Your task to perform on an android device: find which apps use the phone's location Image 0: 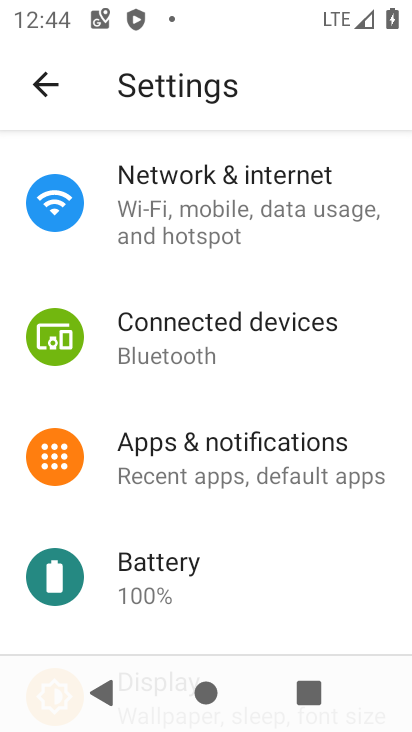
Step 0: press back button
Your task to perform on an android device: find which apps use the phone's location Image 1: 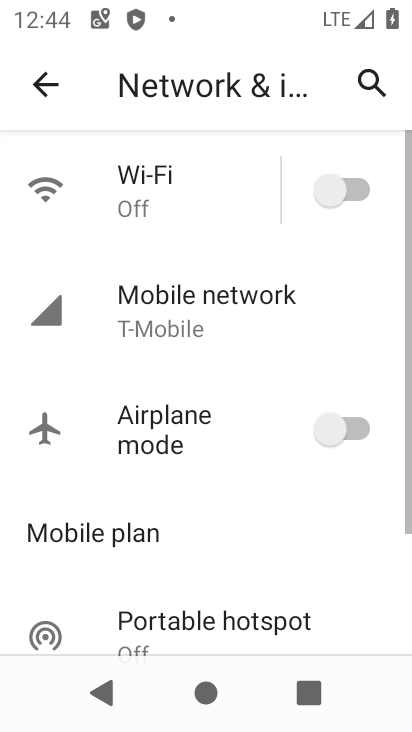
Step 1: press back button
Your task to perform on an android device: find which apps use the phone's location Image 2: 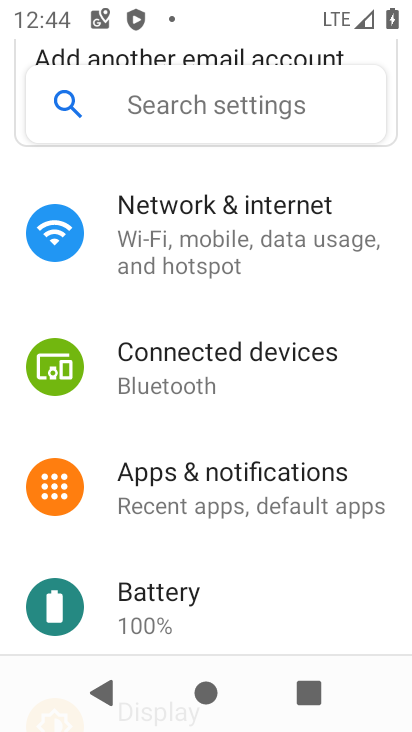
Step 2: press back button
Your task to perform on an android device: find which apps use the phone's location Image 3: 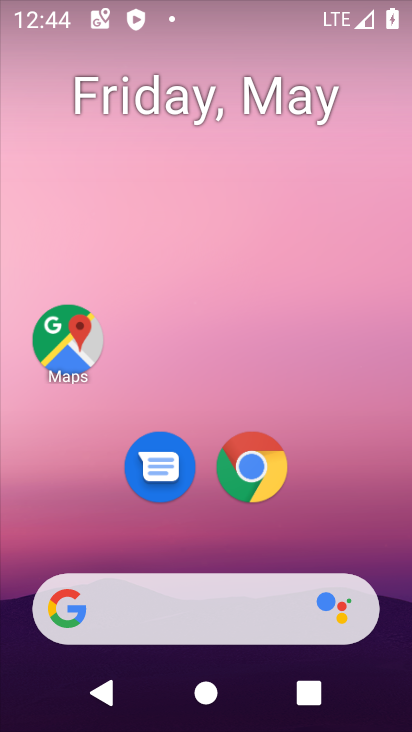
Step 3: drag from (331, 518) to (272, 118)
Your task to perform on an android device: find which apps use the phone's location Image 4: 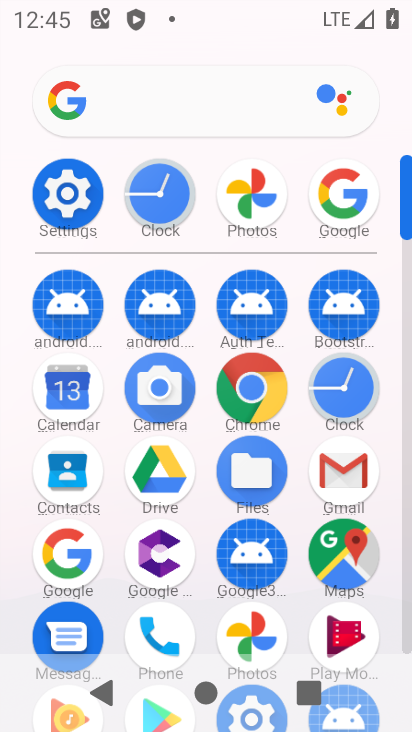
Step 4: drag from (205, 509) to (203, 327)
Your task to perform on an android device: find which apps use the phone's location Image 5: 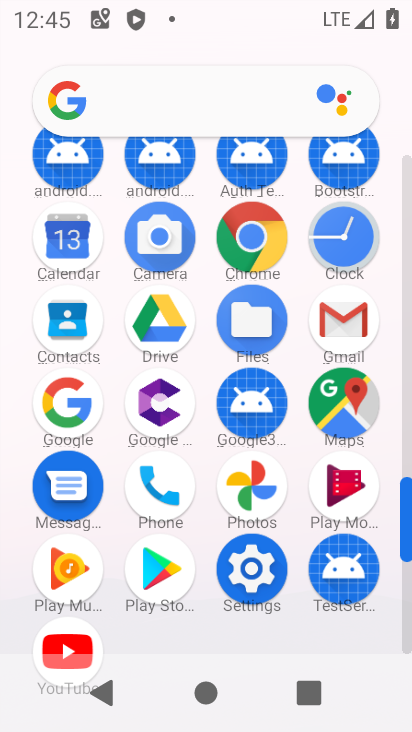
Step 5: click (249, 568)
Your task to perform on an android device: find which apps use the phone's location Image 6: 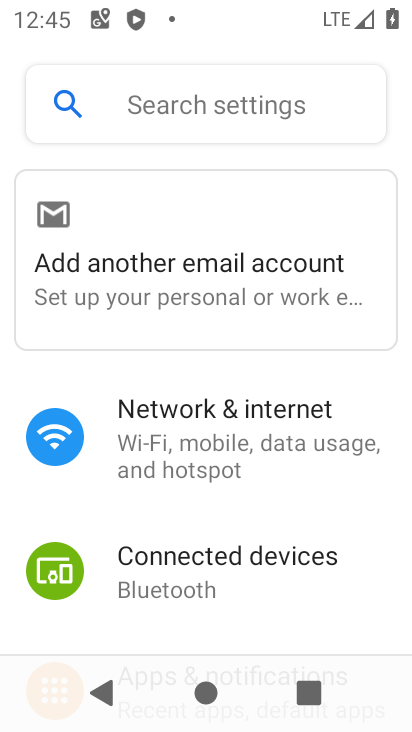
Step 6: drag from (260, 526) to (261, 216)
Your task to perform on an android device: find which apps use the phone's location Image 7: 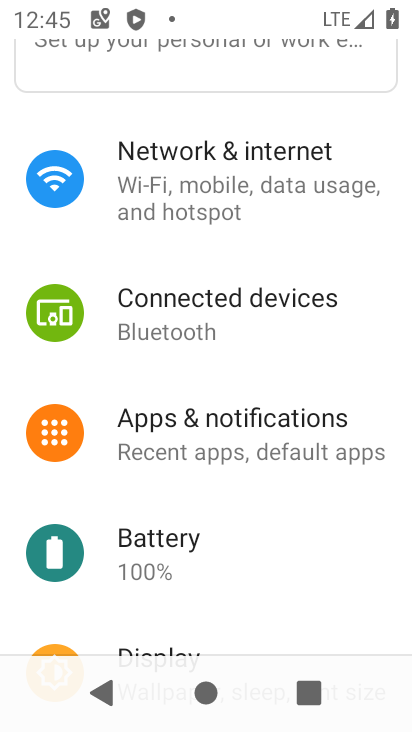
Step 7: drag from (211, 484) to (219, 231)
Your task to perform on an android device: find which apps use the phone's location Image 8: 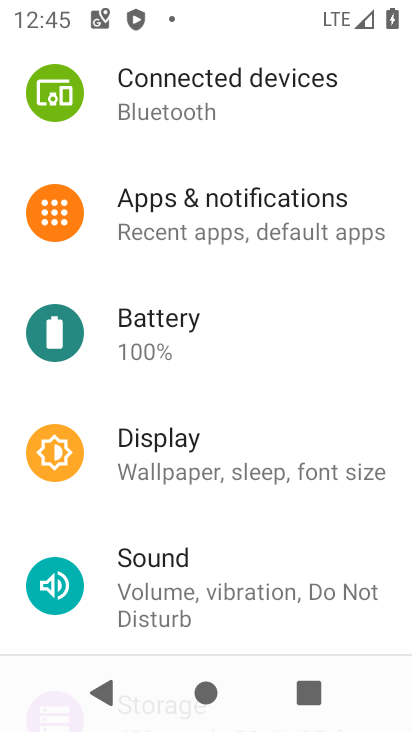
Step 8: drag from (196, 502) to (211, 255)
Your task to perform on an android device: find which apps use the phone's location Image 9: 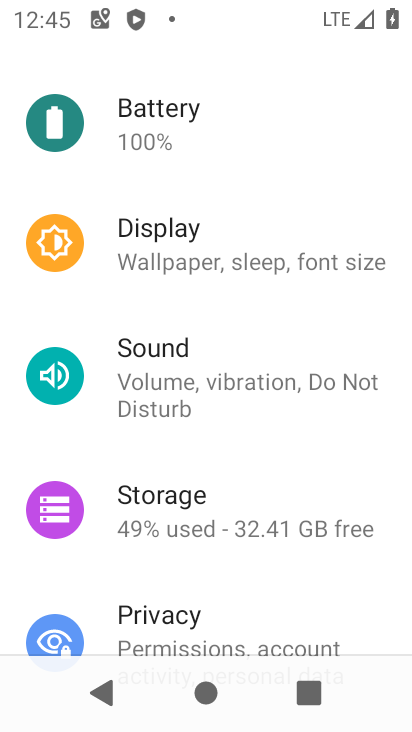
Step 9: drag from (165, 446) to (166, 193)
Your task to perform on an android device: find which apps use the phone's location Image 10: 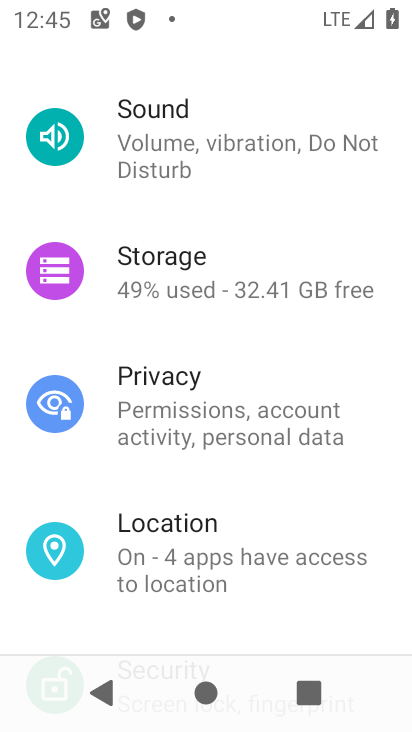
Step 10: drag from (149, 477) to (194, 287)
Your task to perform on an android device: find which apps use the phone's location Image 11: 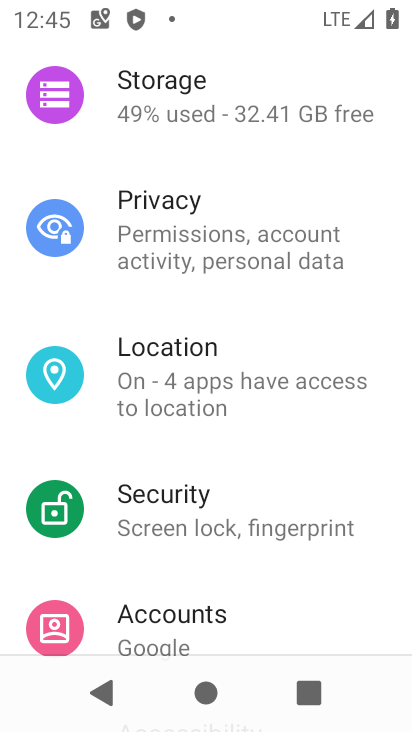
Step 11: drag from (147, 460) to (179, 303)
Your task to perform on an android device: find which apps use the phone's location Image 12: 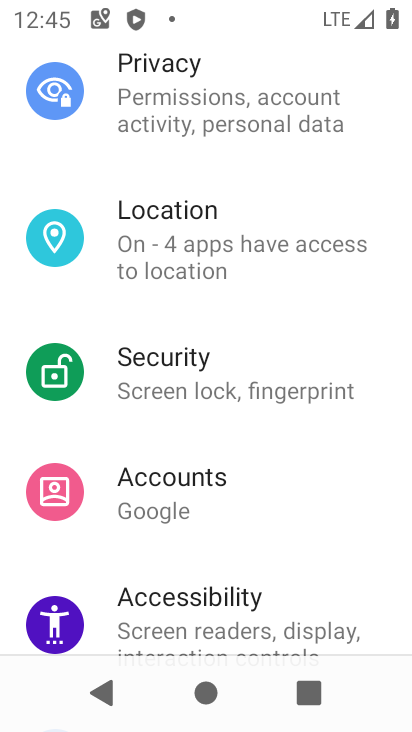
Step 12: click (179, 208)
Your task to perform on an android device: find which apps use the phone's location Image 13: 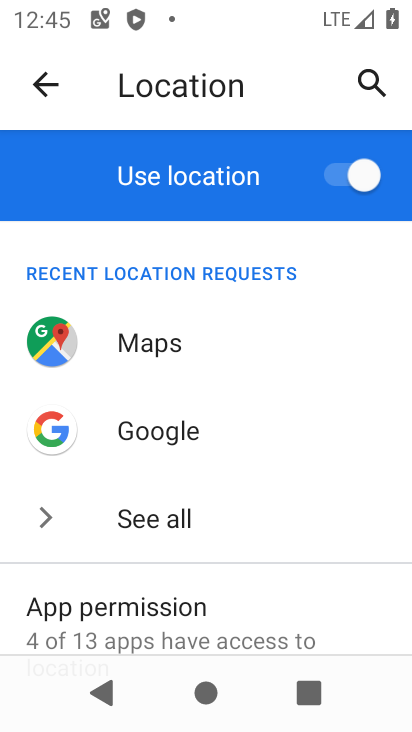
Step 13: drag from (233, 520) to (251, 394)
Your task to perform on an android device: find which apps use the phone's location Image 14: 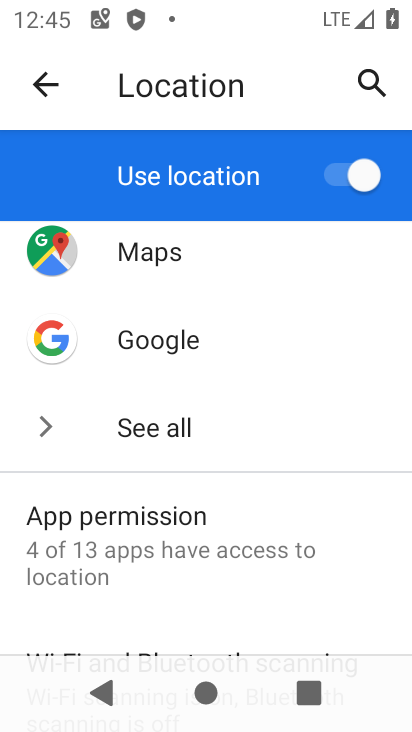
Step 14: click (187, 526)
Your task to perform on an android device: find which apps use the phone's location Image 15: 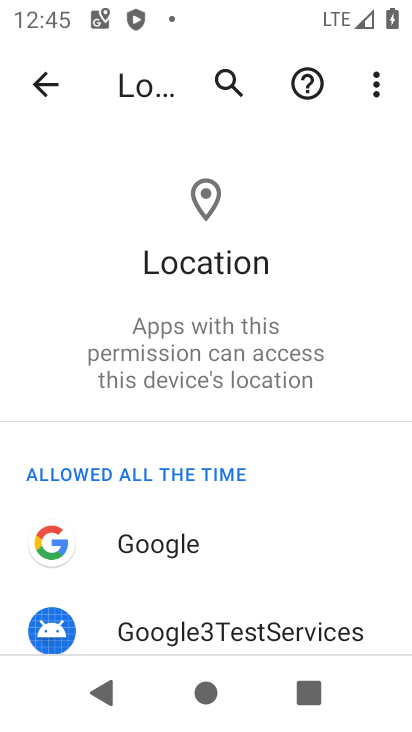
Step 15: drag from (187, 529) to (245, 287)
Your task to perform on an android device: find which apps use the phone's location Image 16: 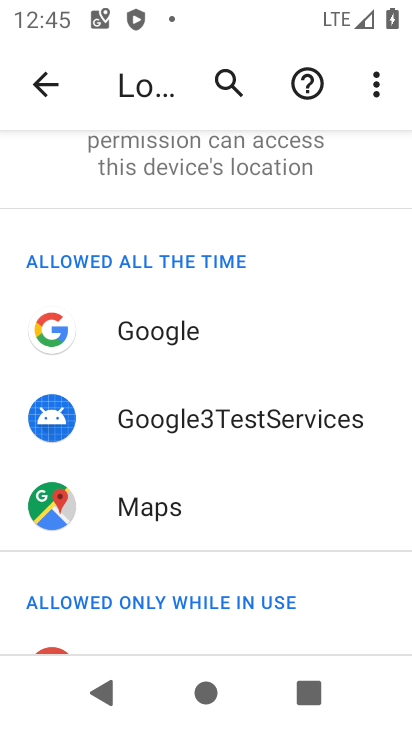
Step 16: click (169, 503)
Your task to perform on an android device: find which apps use the phone's location Image 17: 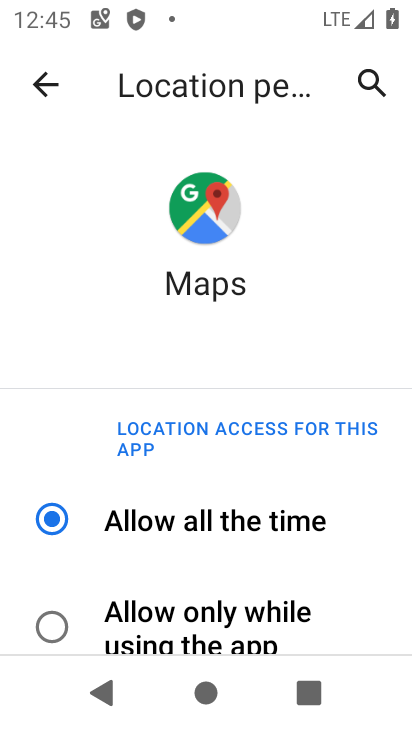
Step 17: task complete